Your task to perform on an android device: add a label to a message in the gmail app Image 0: 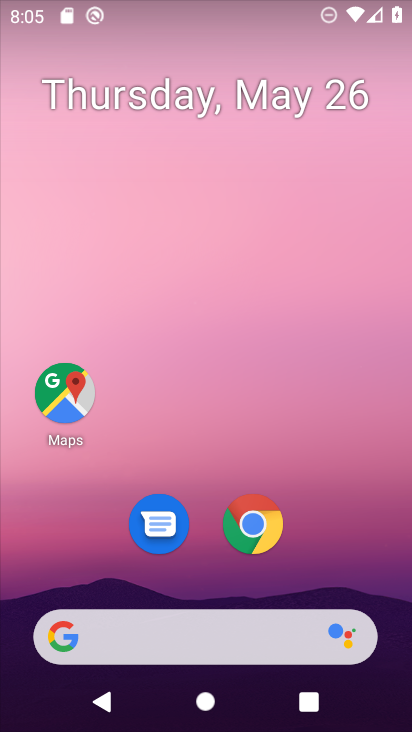
Step 0: drag from (205, 447) to (229, 0)
Your task to perform on an android device: add a label to a message in the gmail app Image 1: 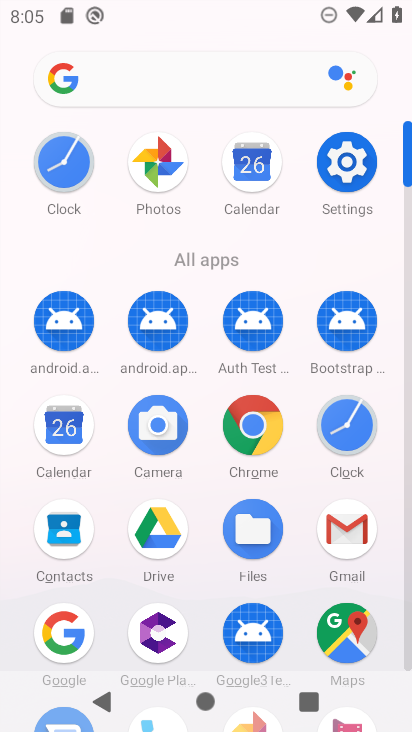
Step 1: click (337, 527)
Your task to perform on an android device: add a label to a message in the gmail app Image 2: 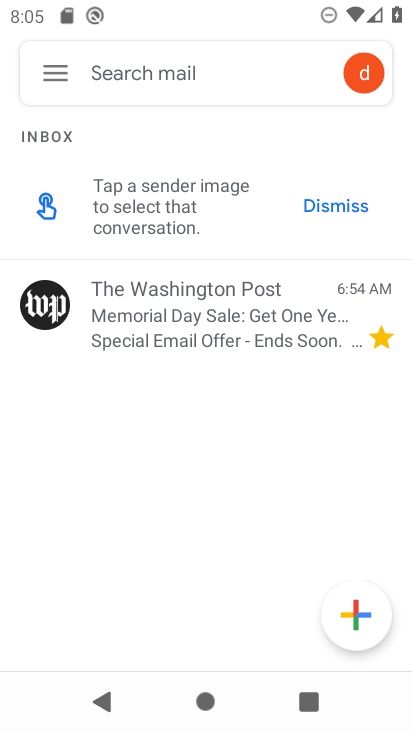
Step 2: click (56, 64)
Your task to perform on an android device: add a label to a message in the gmail app Image 3: 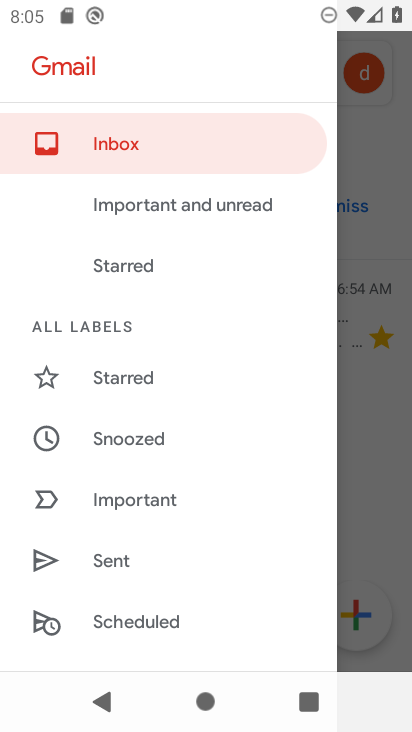
Step 3: drag from (161, 524) to (201, 185)
Your task to perform on an android device: add a label to a message in the gmail app Image 4: 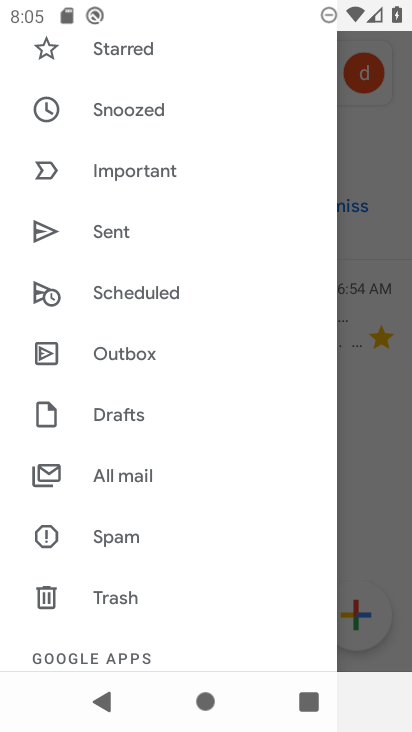
Step 4: click (179, 471)
Your task to perform on an android device: add a label to a message in the gmail app Image 5: 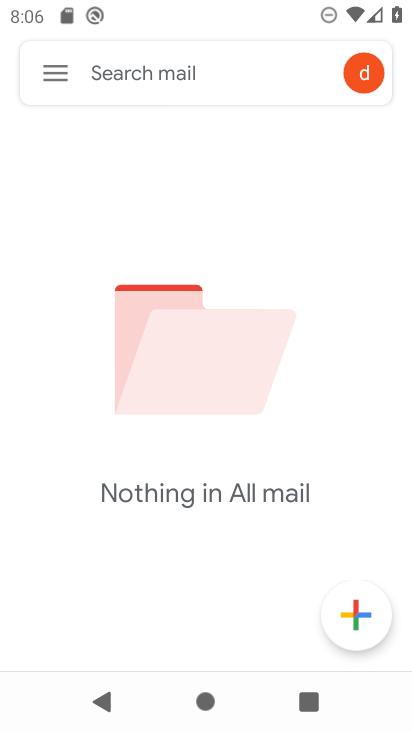
Step 5: task complete